Your task to perform on an android device: toggle notification dots Image 0: 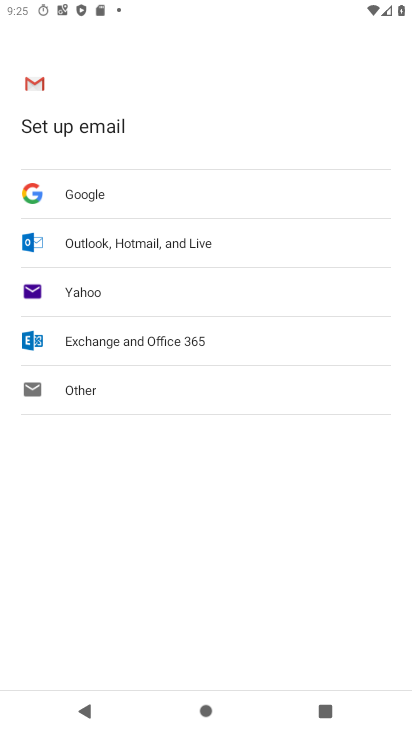
Step 0: press home button
Your task to perform on an android device: toggle notification dots Image 1: 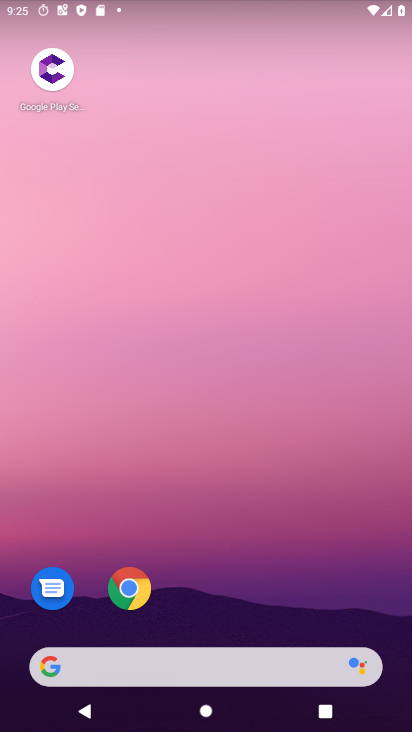
Step 1: drag from (179, 626) to (90, 0)
Your task to perform on an android device: toggle notification dots Image 2: 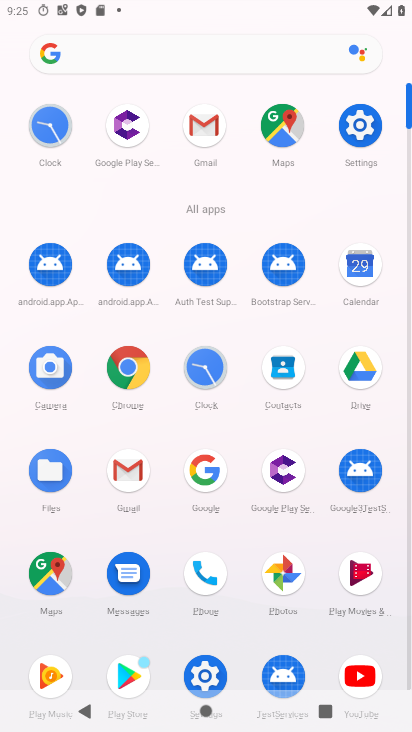
Step 2: click (360, 118)
Your task to perform on an android device: toggle notification dots Image 3: 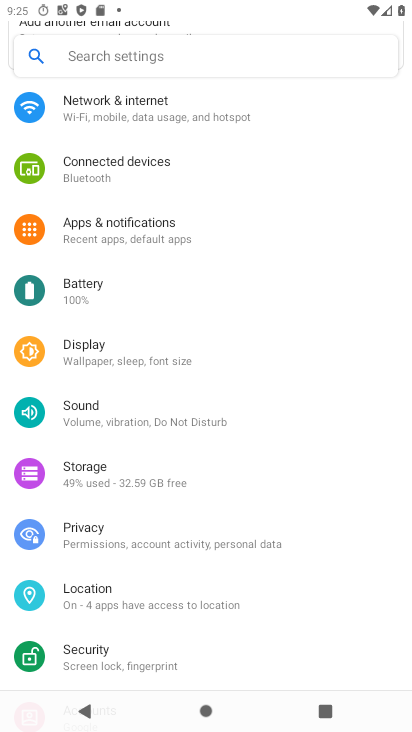
Step 3: click (157, 225)
Your task to perform on an android device: toggle notification dots Image 4: 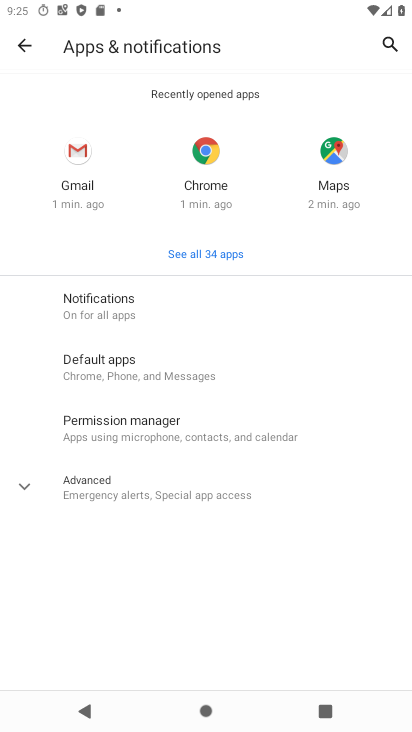
Step 4: click (136, 308)
Your task to perform on an android device: toggle notification dots Image 5: 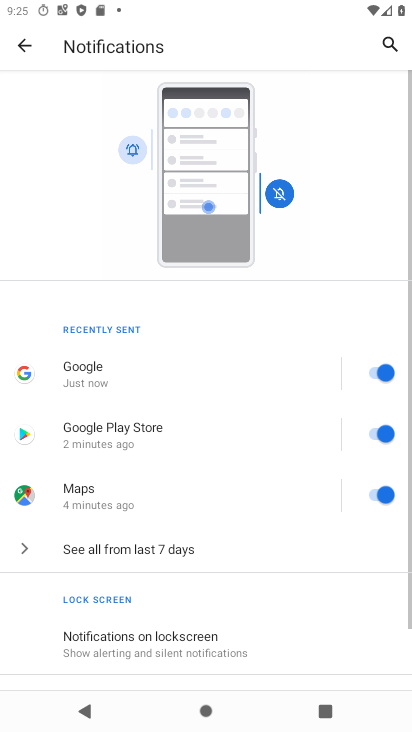
Step 5: drag from (220, 603) to (277, 257)
Your task to perform on an android device: toggle notification dots Image 6: 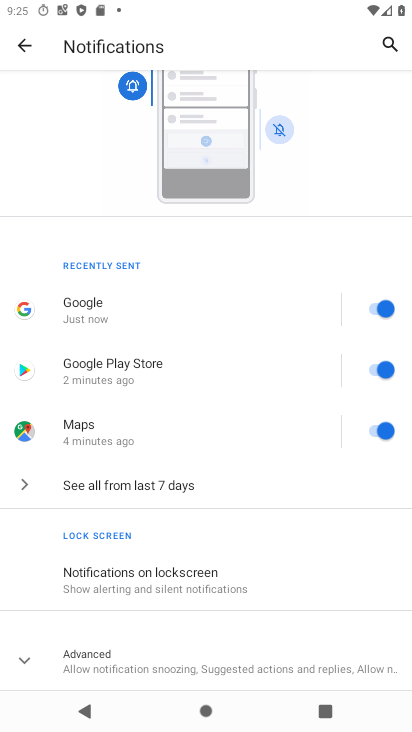
Step 6: click (150, 644)
Your task to perform on an android device: toggle notification dots Image 7: 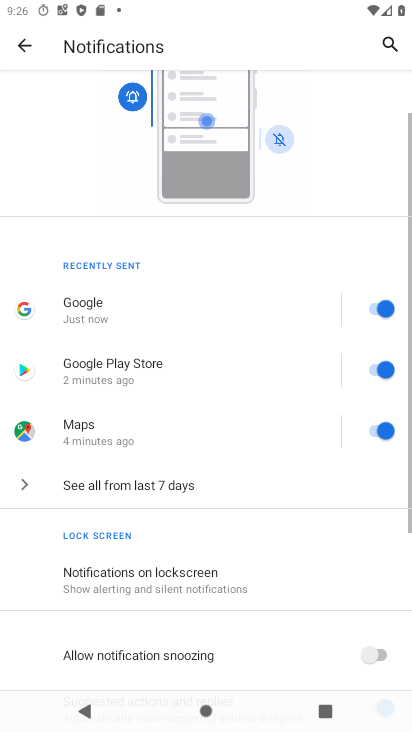
Step 7: drag from (177, 626) to (235, 221)
Your task to perform on an android device: toggle notification dots Image 8: 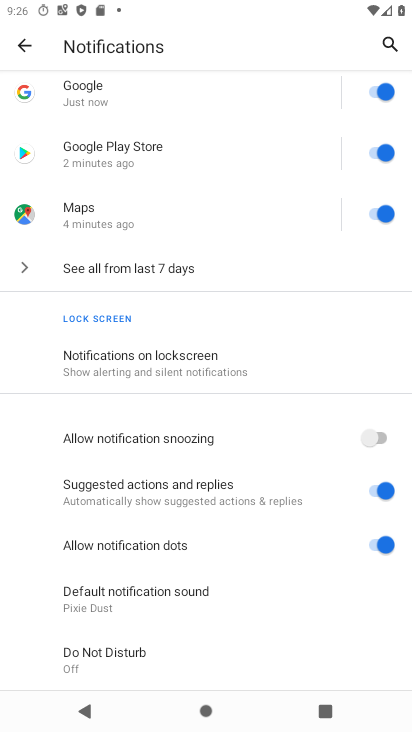
Step 8: click (366, 536)
Your task to perform on an android device: toggle notification dots Image 9: 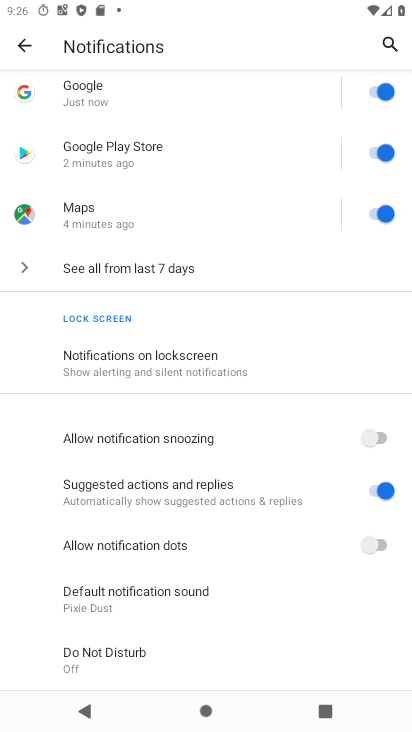
Step 9: task complete